Your task to perform on an android device: Open internet settings Image 0: 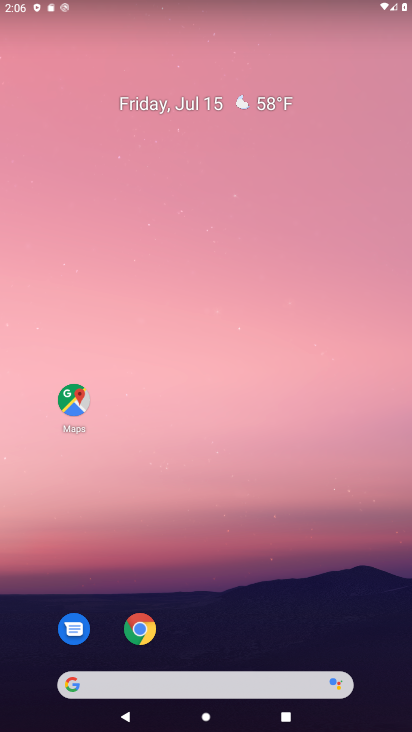
Step 0: drag from (316, 643) to (215, 127)
Your task to perform on an android device: Open internet settings Image 1: 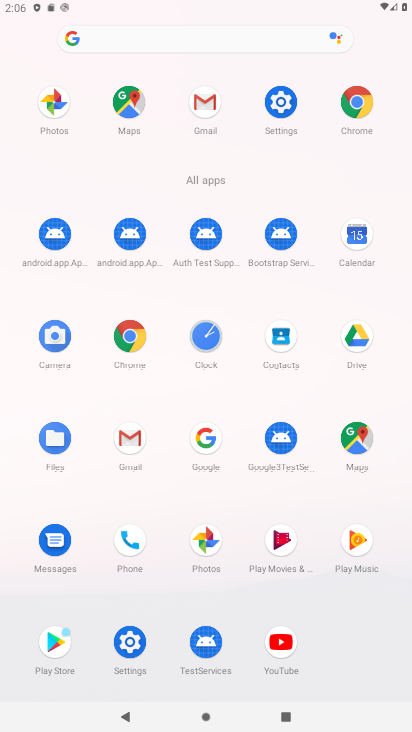
Step 1: click (282, 110)
Your task to perform on an android device: Open internet settings Image 2: 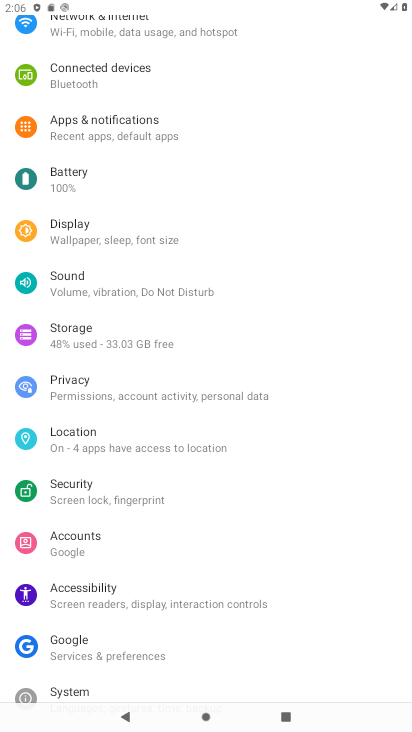
Step 2: click (220, 38)
Your task to perform on an android device: Open internet settings Image 3: 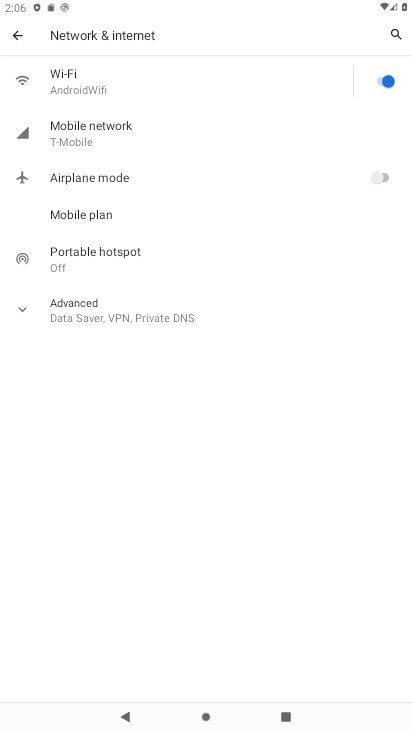
Step 3: task complete